Your task to perform on an android device: turn off location Image 0: 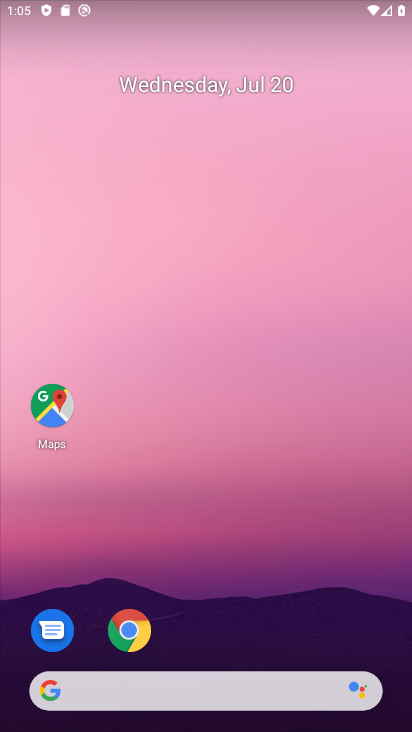
Step 0: drag from (248, 652) to (243, 90)
Your task to perform on an android device: turn off location Image 1: 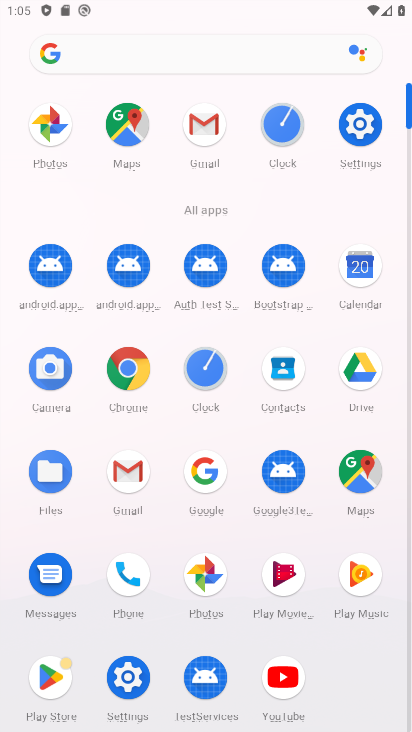
Step 1: click (345, 124)
Your task to perform on an android device: turn off location Image 2: 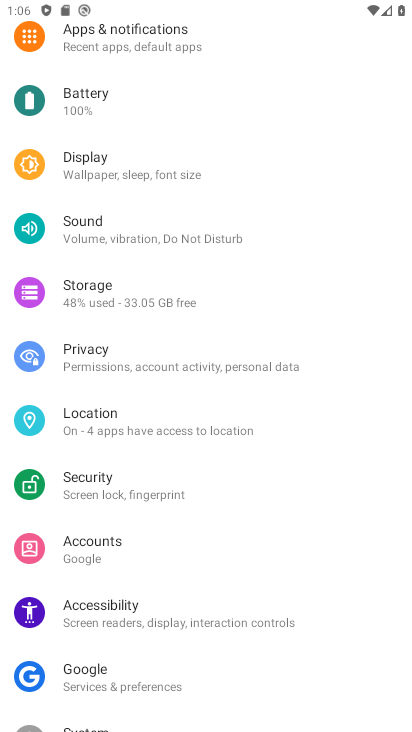
Step 2: click (137, 415)
Your task to perform on an android device: turn off location Image 3: 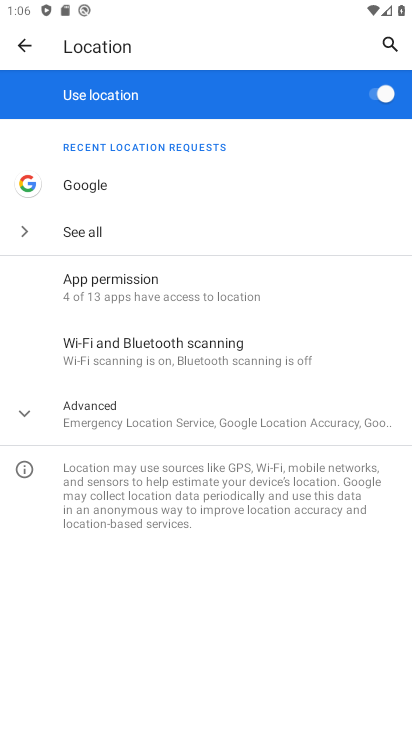
Step 3: click (384, 89)
Your task to perform on an android device: turn off location Image 4: 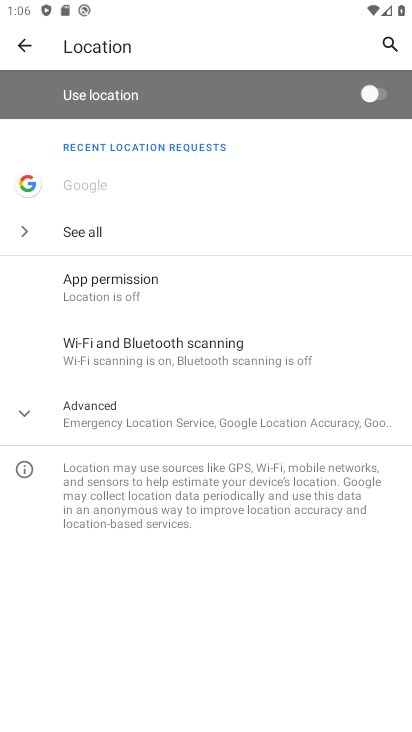
Step 4: task complete